Your task to perform on an android device: Open settings on Google Maps Image 0: 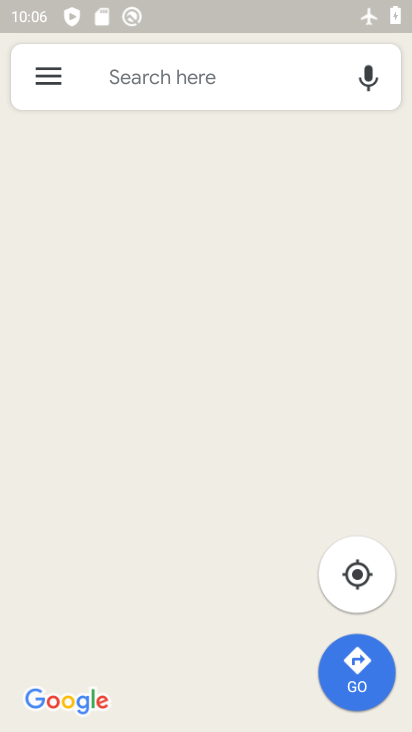
Step 0: click (55, 69)
Your task to perform on an android device: Open settings on Google Maps Image 1: 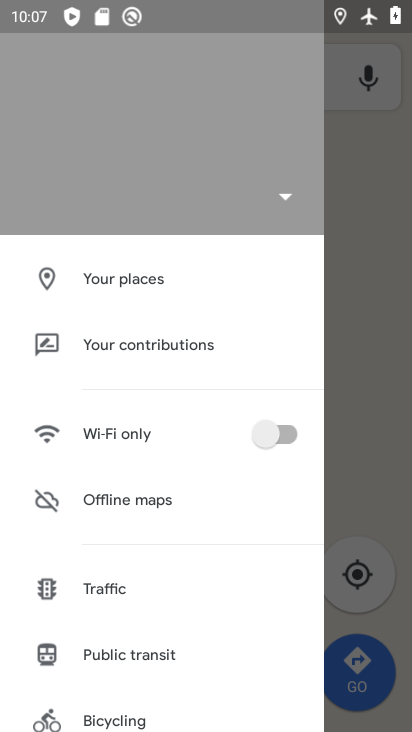
Step 1: drag from (122, 604) to (171, 153)
Your task to perform on an android device: Open settings on Google Maps Image 2: 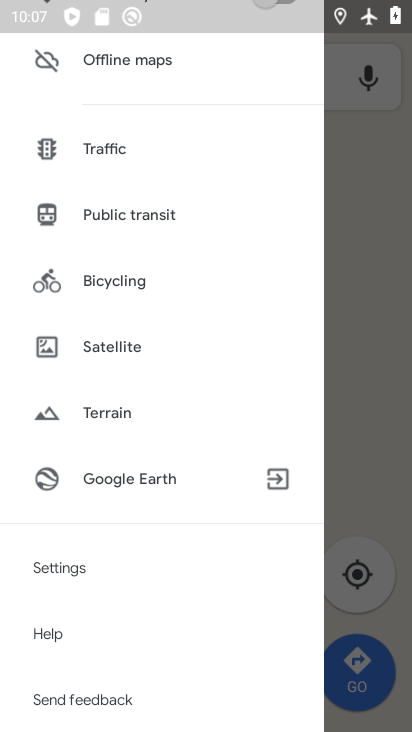
Step 2: click (75, 572)
Your task to perform on an android device: Open settings on Google Maps Image 3: 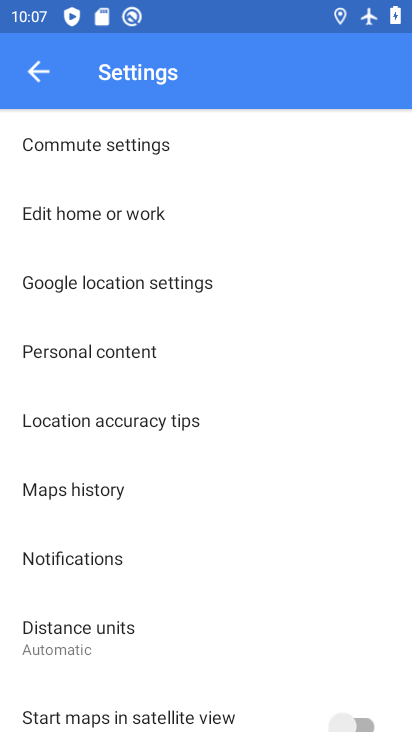
Step 3: task complete